Your task to perform on an android device: Open display settings Image 0: 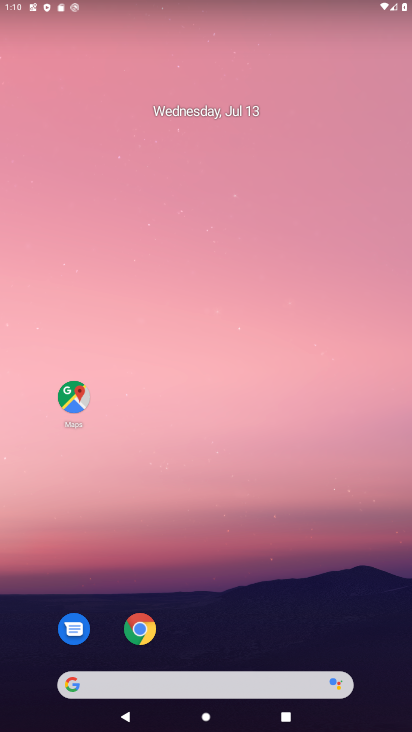
Step 0: drag from (203, 659) to (232, 327)
Your task to perform on an android device: Open display settings Image 1: 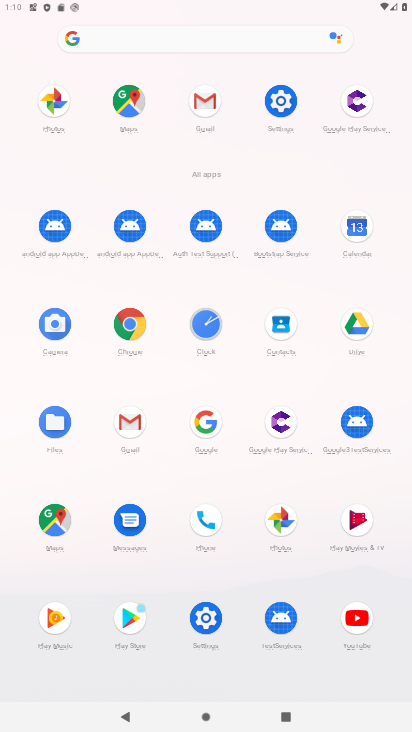
Step 1: click (202, 609)
Your task to perform on an android device: Open display settings Image 2: 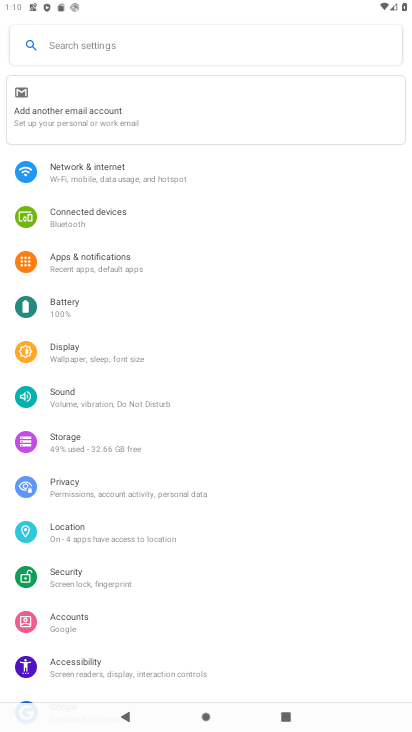
Step 2: click (99, 361)
Your task to perform on an android device: Open display settings Image 3: 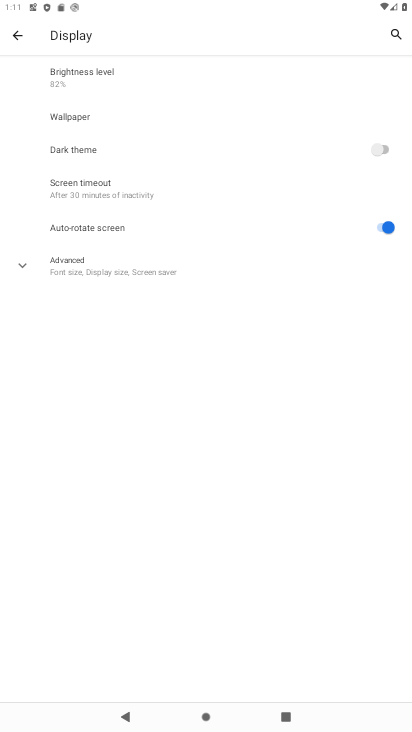
Step 3: drag from (151, 406) to (188, 194)
Your task to perform on an android device: Open display settings Image 4: 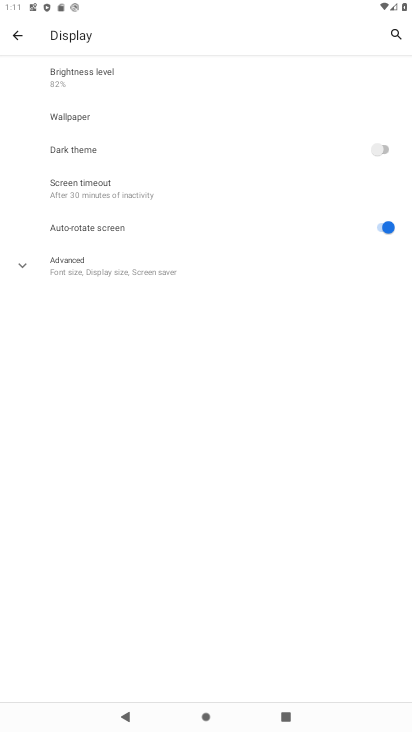
Step 4: click (91, 262)
Your task to perform on an android device: Open display settings Image 5: 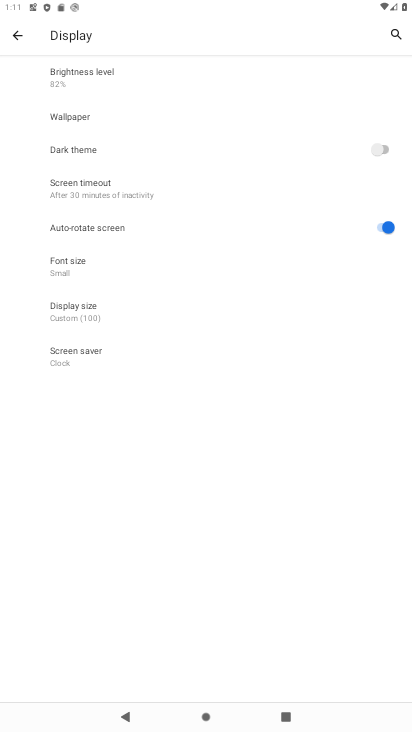
Step 5: task complete